Your task to perform on an android device: turn off notifications in google photos Image 0: 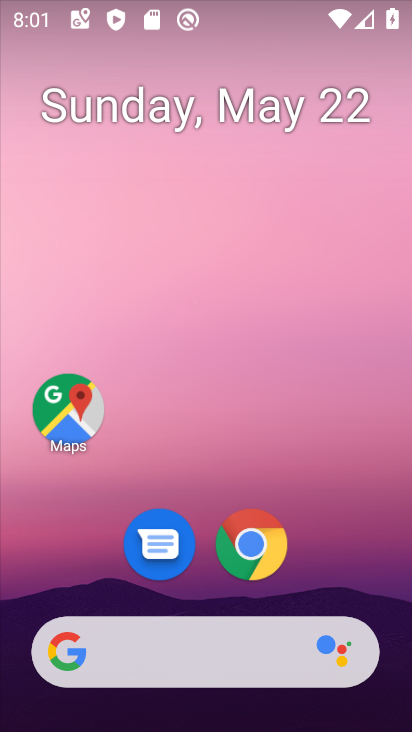
Step 0: drag from (347, 504) to (296, 122)
Your task to perform on an android device: turn off notifications in google photos Image 1: 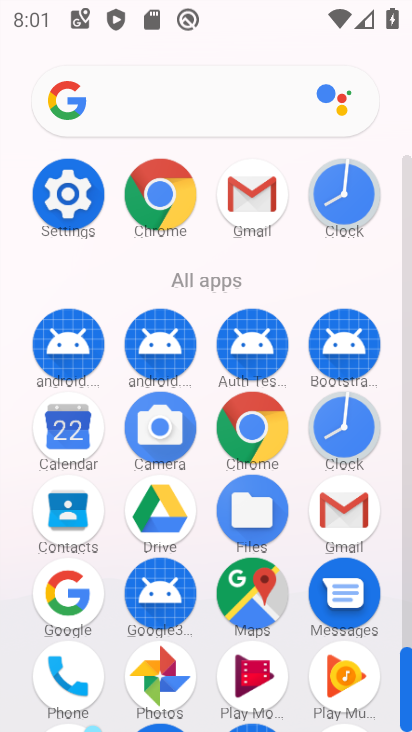
Step 1: click (170, 669)
Your task to perform on an android device: turn off notifications in google photos Image 2: 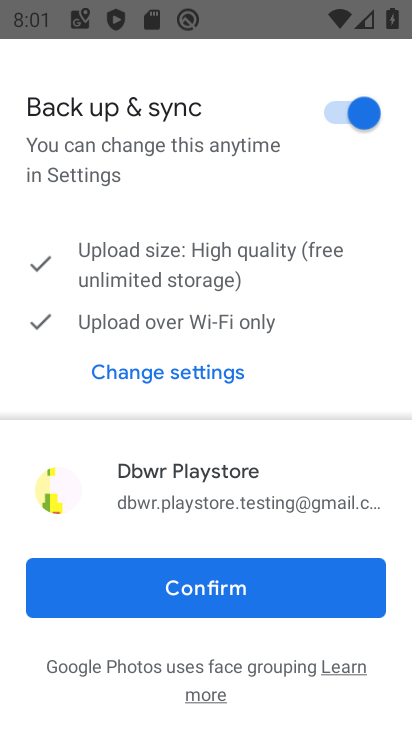
Step 2: click (191, 592)
Your task to perform on an android device: turn off notifications in google photos Image 3: 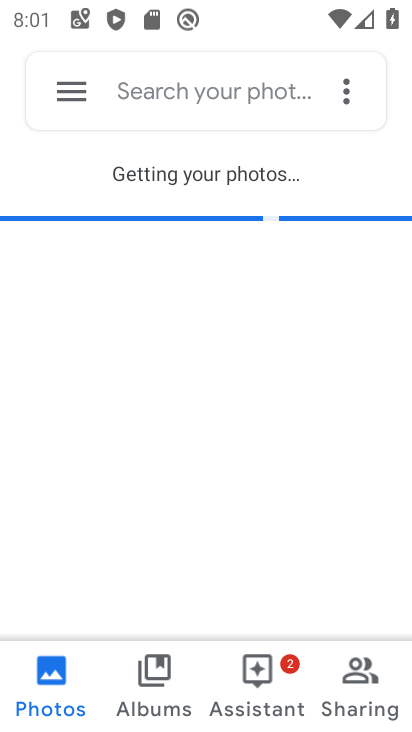
Step 3: click (59, 83)
Your task to perform on an android device: turn off notifications in google photos Image 4: 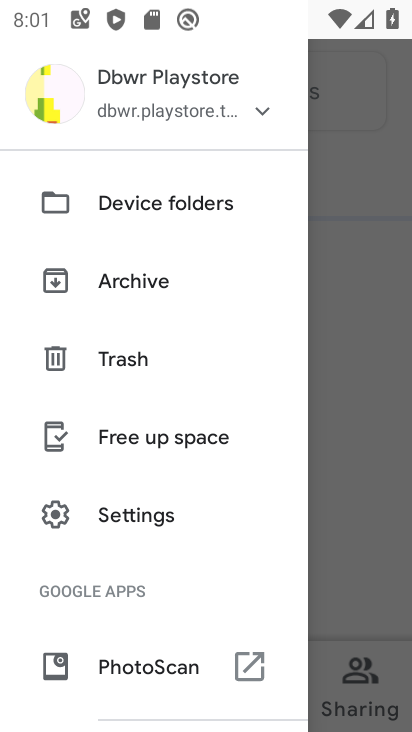
Step 4: drag from (133, 599) to (168, 200)
Your task to perform on an android device: turn off notifications in google photos Image 5: 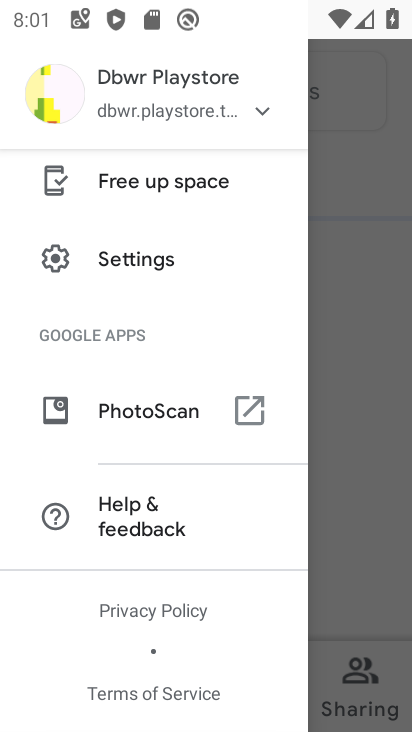
Step 5: click (129, 245)
Your task to perform on an android device: turn off notifications in google photos Image 6: 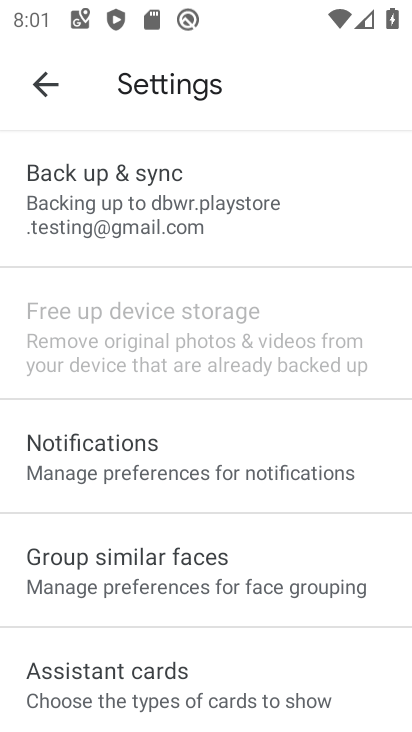
Step 6: click (136, 466)
Your task to perform on an android device: turn off notifications in google photos Image 7: 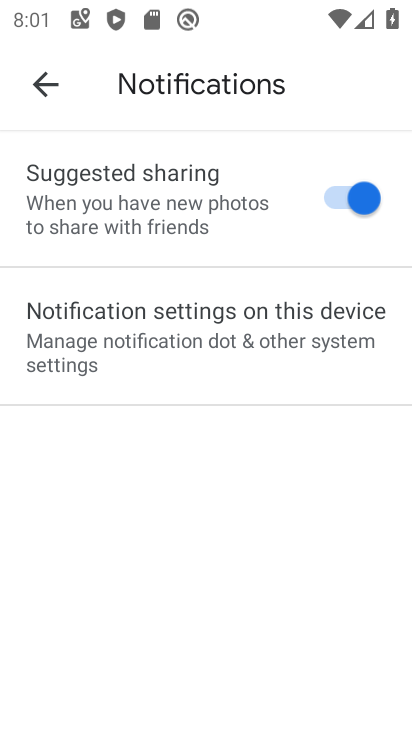
Step 7: click (169, 306)
Your task to perform on an android device: turn off notifications in google photos Image 8: 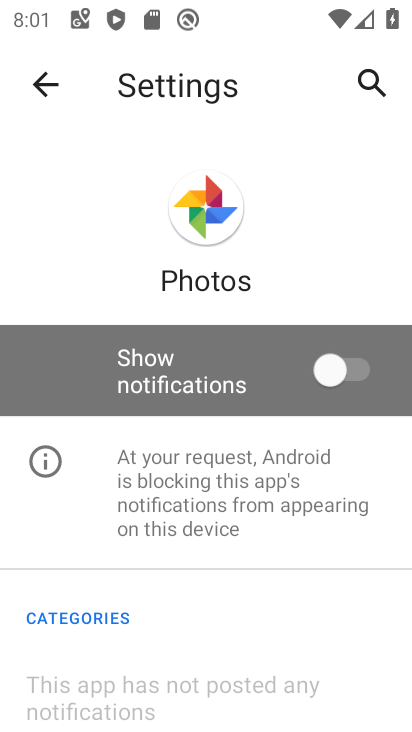
Step 8: task complete